Your task to perform on an android device: Search for Italian restaurants on Maps Image 0: 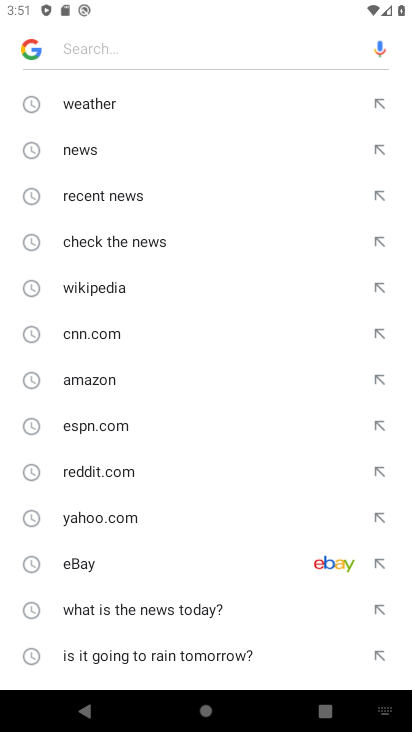
Step 0: press back button
Your task to perform on an android device: Search for Italian restaurants on Maps Image 1: 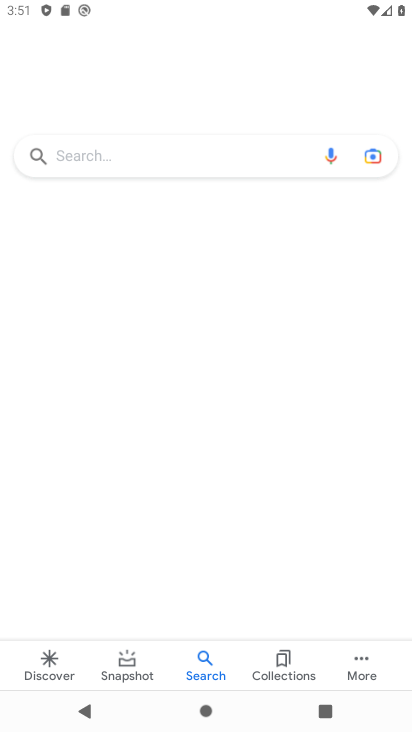
Step 1: press back button
Your task to perform on an android device: Search for Italian restaurants on Maps Image 2: 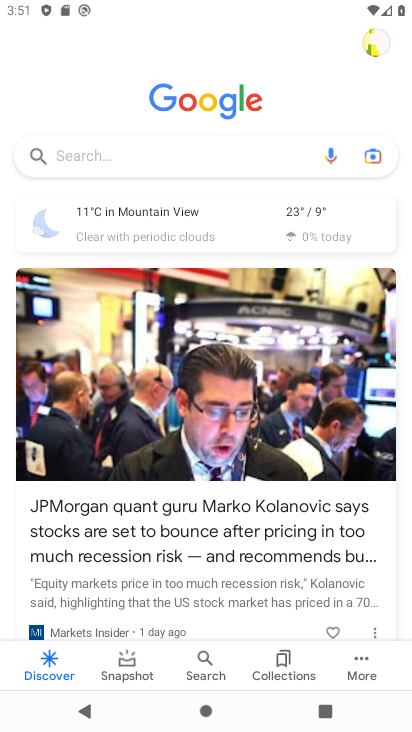
Step 2: press back button
Your task to perform on an android device: Search for Italian restaurants on Maps Image 3: 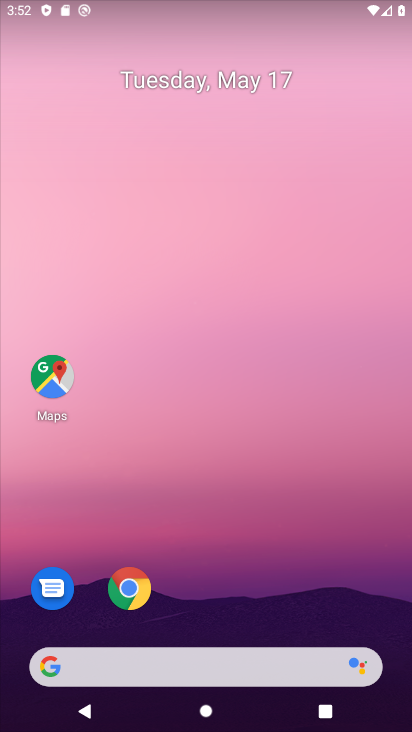
Step 3: click (51, 378)
Your task to perform on an android device: Search for Italian restaurants on Maps Image 4: 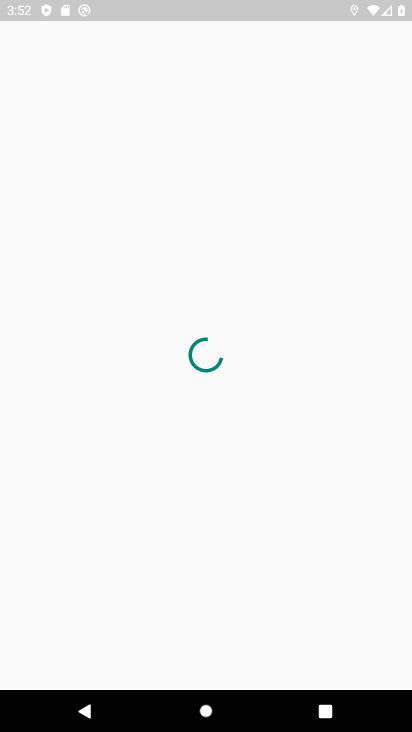
Step 4: click (210, 53)
Your task to perform on an android device: Search for Italian restaurants on Maps Image 5: 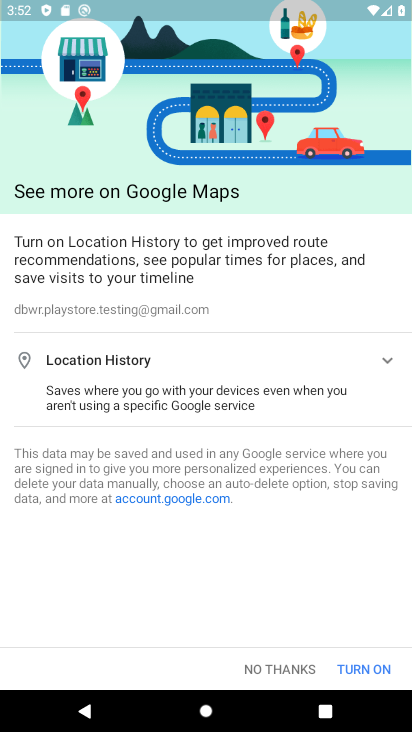
Step 5: click (266, 664)
Your task to perform on an android device: Search for Italian restaurants on Maps Image 6: 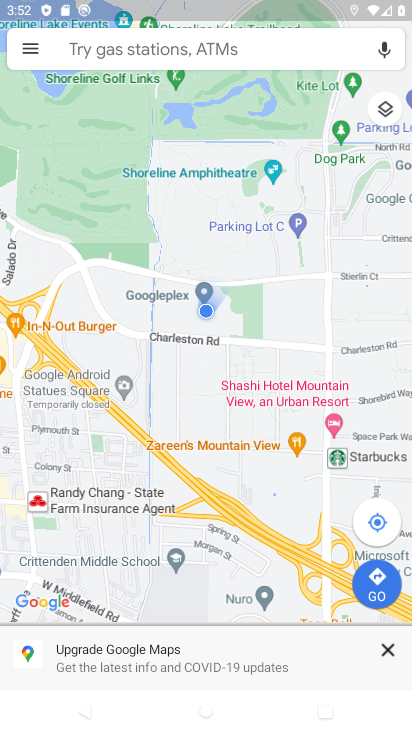
Step 6: click (227, 52)
Your task to perform on an android device: Search for Italian restaurants on Maps Image 7: 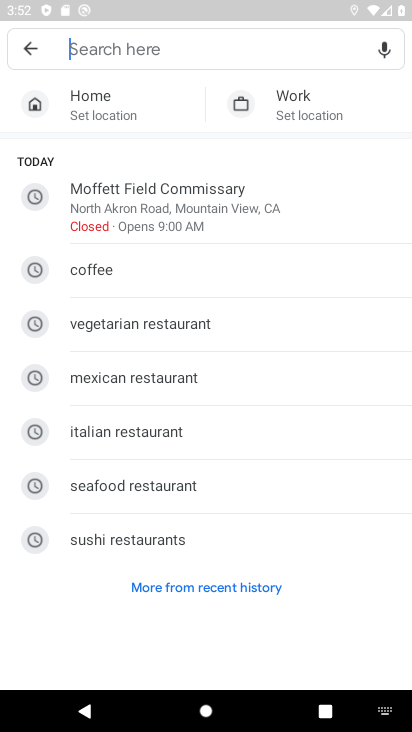
Step 7: type "Italian restaurants"
Your task to perform on an android device: Search for Italian restaurants on Maps Image 8: 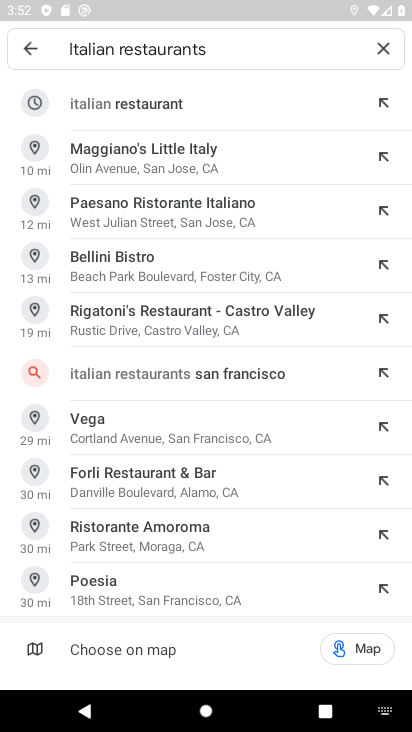
Step 8: click (136, 105)
Your task to perform on an android device: Search for Italian restaurants on Maps Image 9: 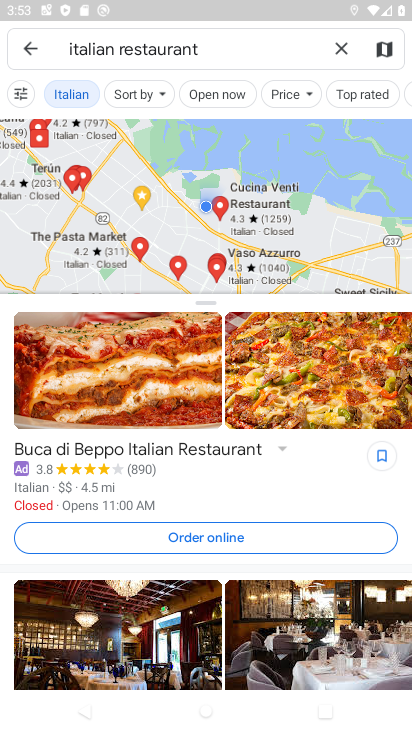
Step 9: task complete